Your task to perform on an android device: Open the files app Image 0: 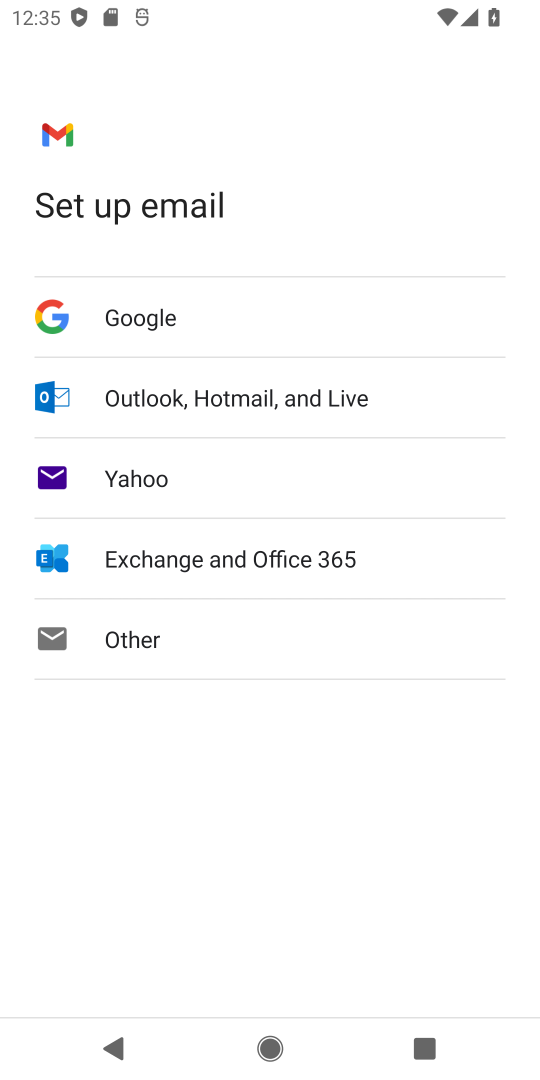
Step 0: press home button
Your task to perform on an android device: Open the files app Image 1: 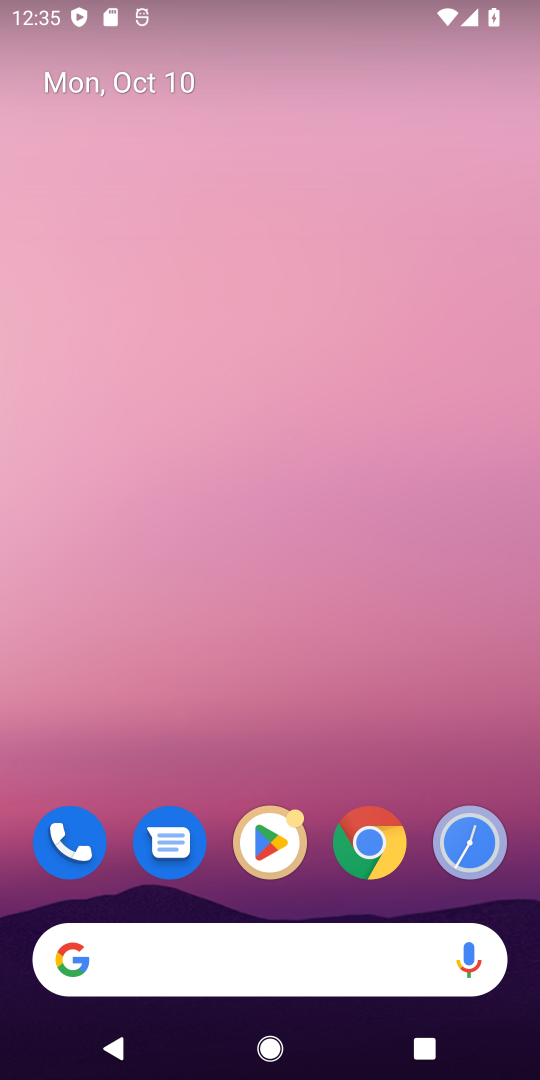
Step 1: click (374, 853)
Your task to perform on an android device: Open the files app Image 2: 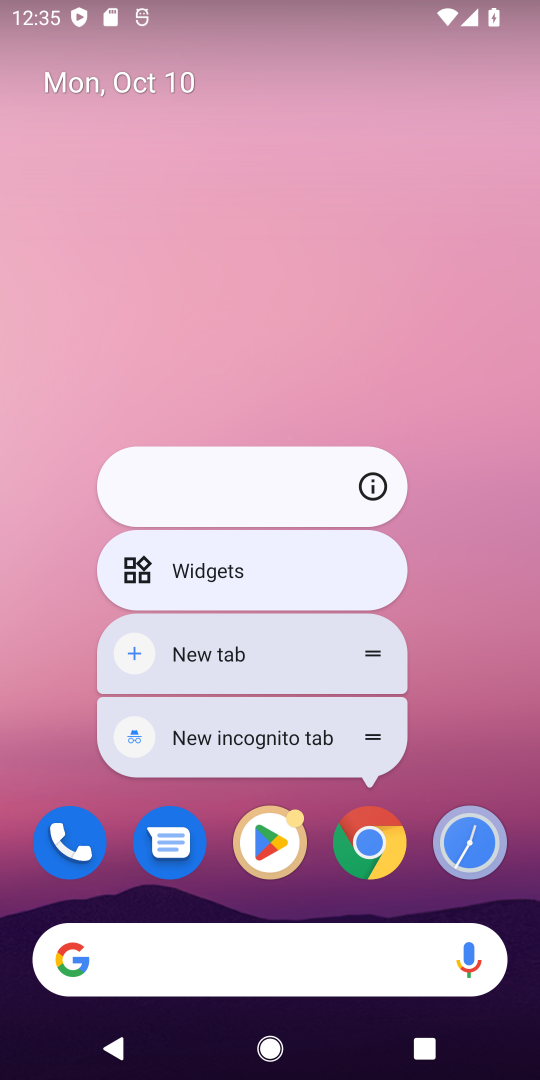
Step 2: click (382, 870)
Your task to perform on an android device: Open the files app Image 3: 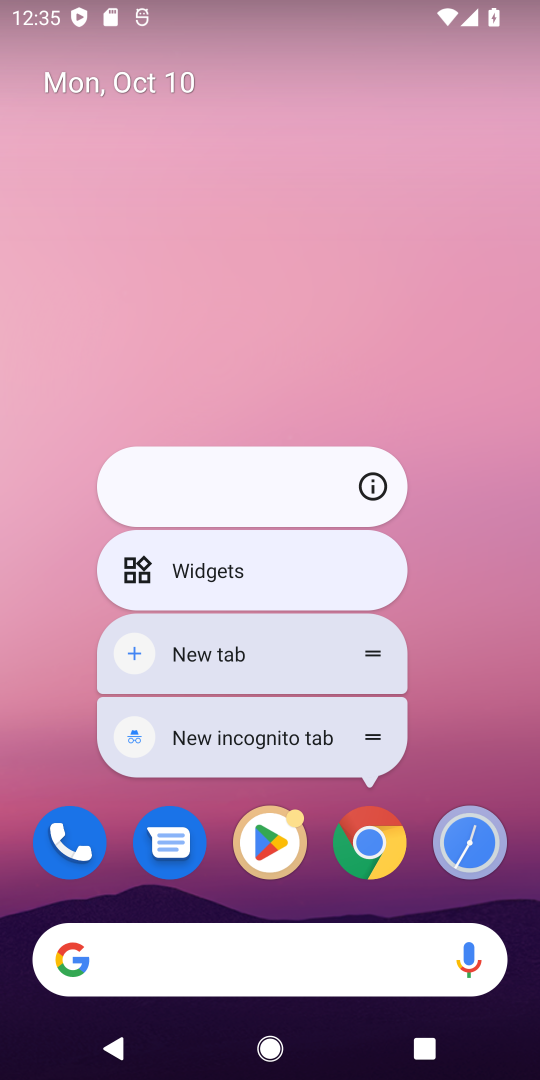
Step 3: click (372, 841)
Your task to perform on an android device: Open the files app Image 4: 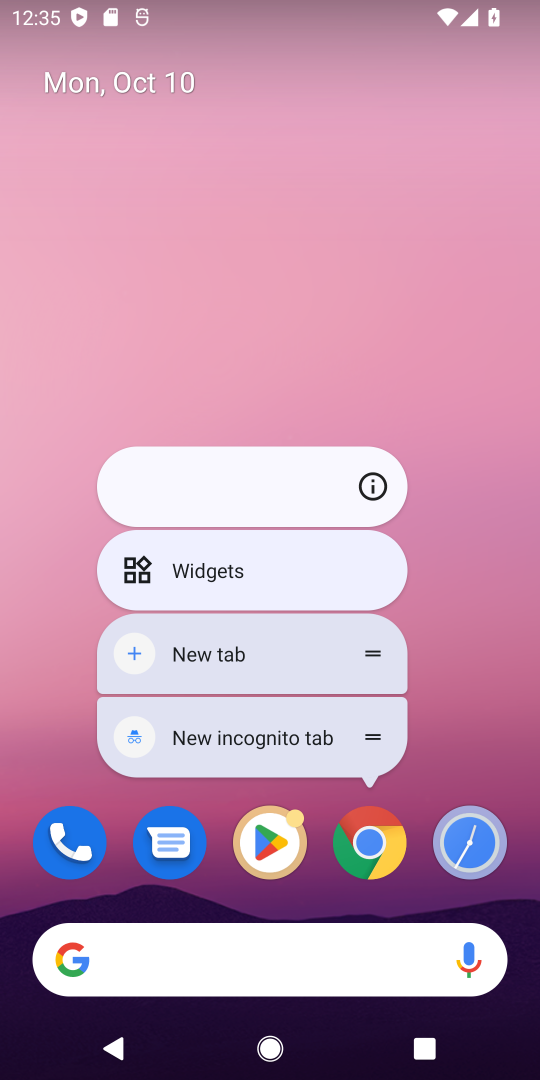
Step 4: click (384, 844)
Your task to perform on an android device: Open the files app Image 5: 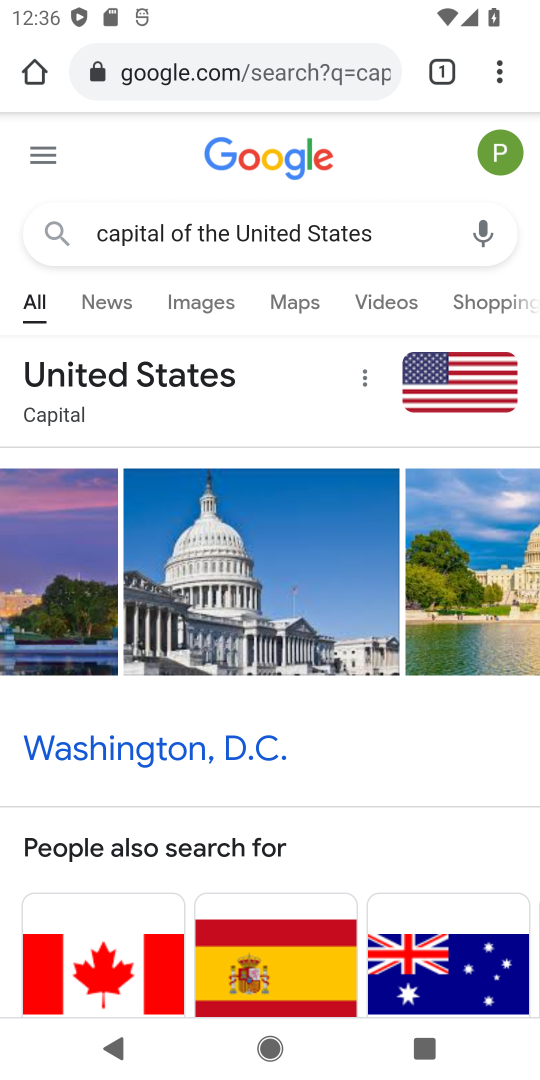
Step 5: click (232, 57)
Your task to perform on an android device: Open the files app Image 6: 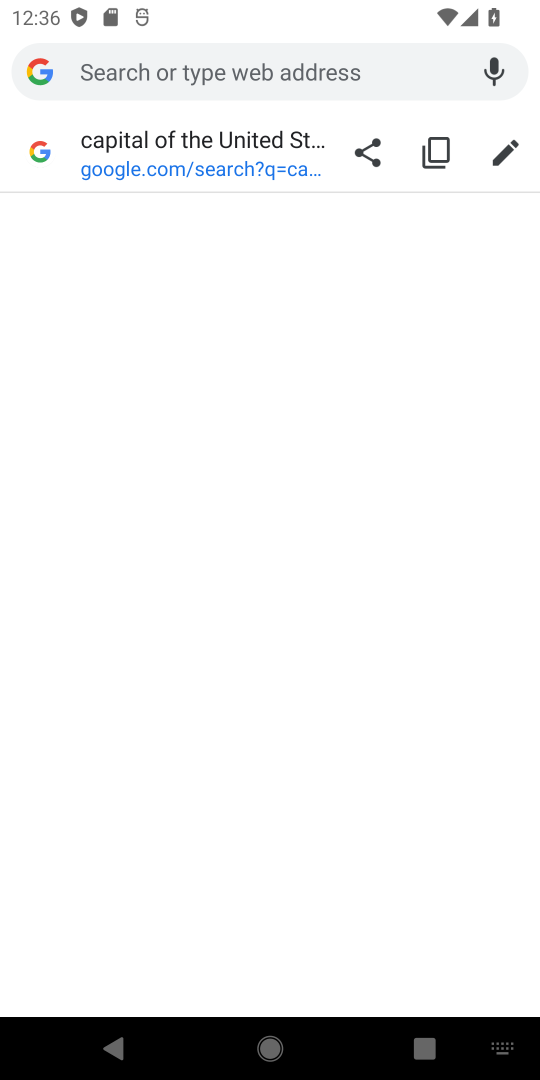
Step 6: press home button
Your task to perform on an android device: Open the files app Image 7: 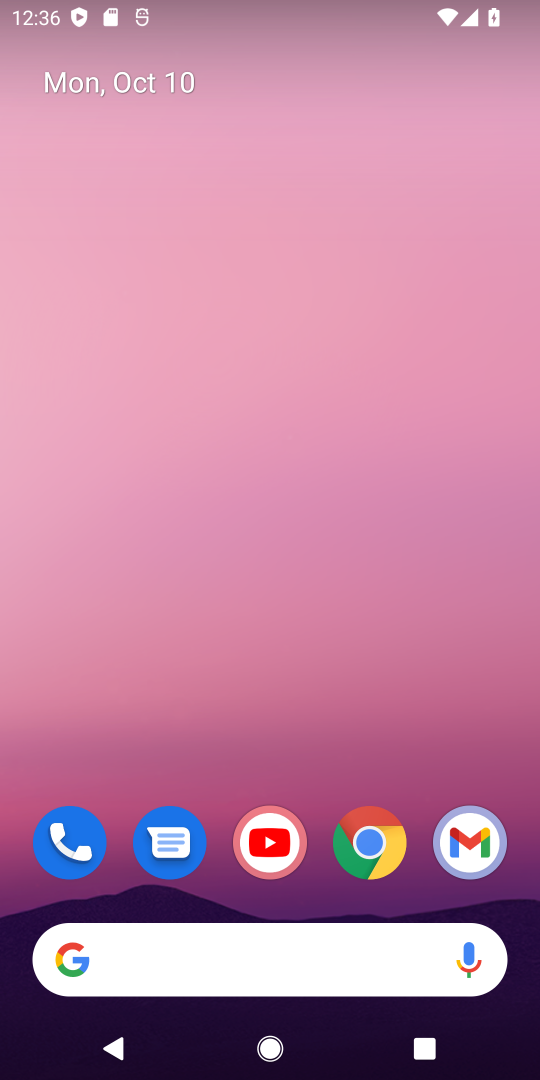
Step 7: drag from (282, 967) to (298, 285)
Your task to perform on an android device: Open the files app Image 8: 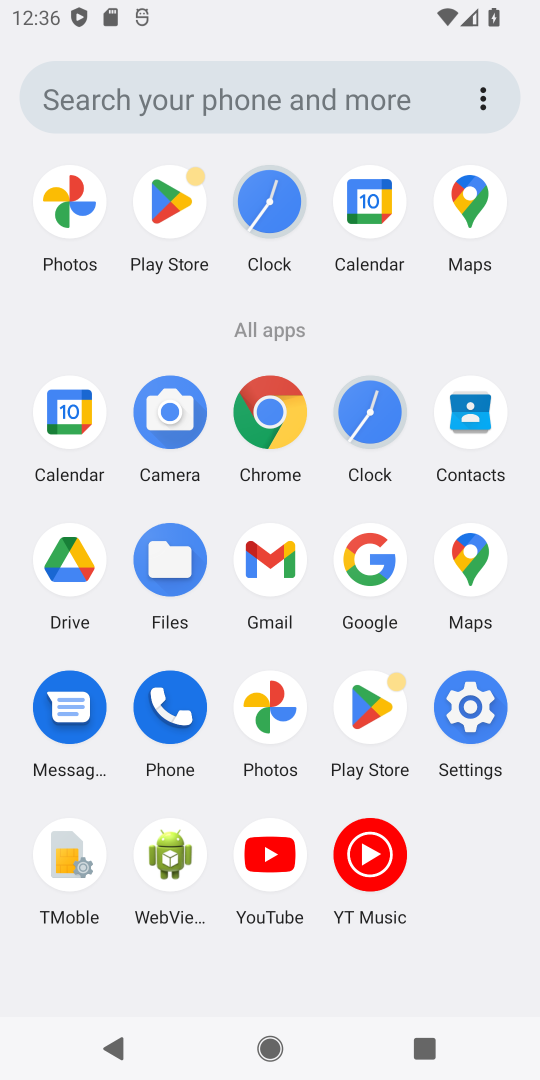
Step 8: click (175, 560)
Your task to perform on an android device: Open the files app Image 9: 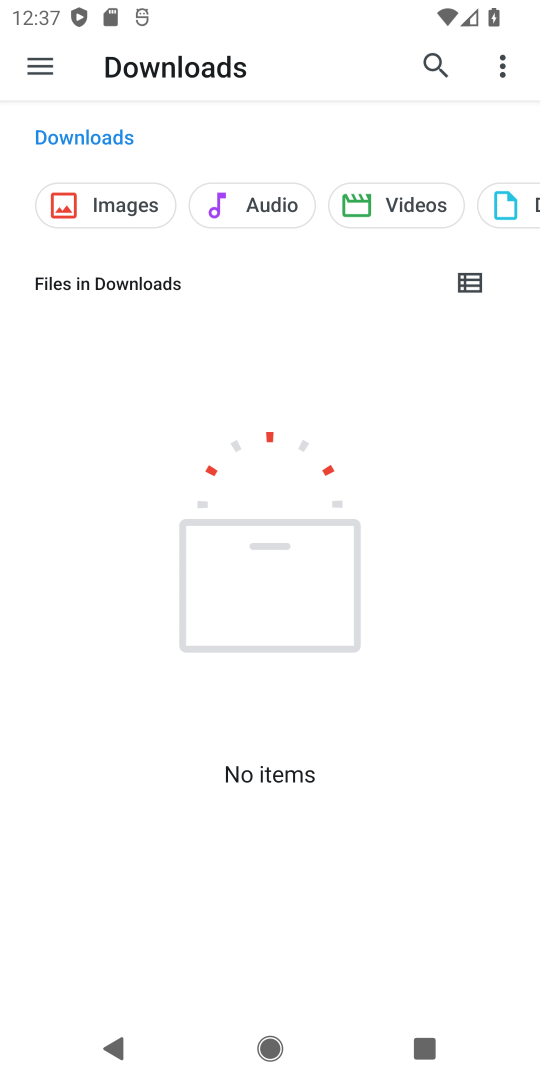
Step 9: task complete